Your task to perform on an android device: Open ESPN.com Image 0: 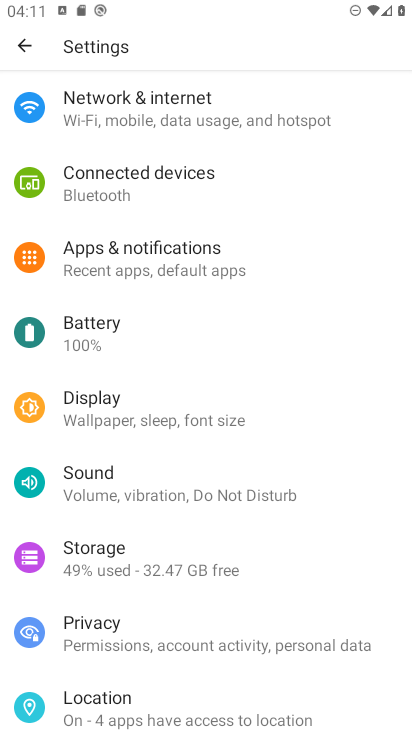
Step 0: press home button
Your task to perform on an android device: Open ESPN.com Image 1: 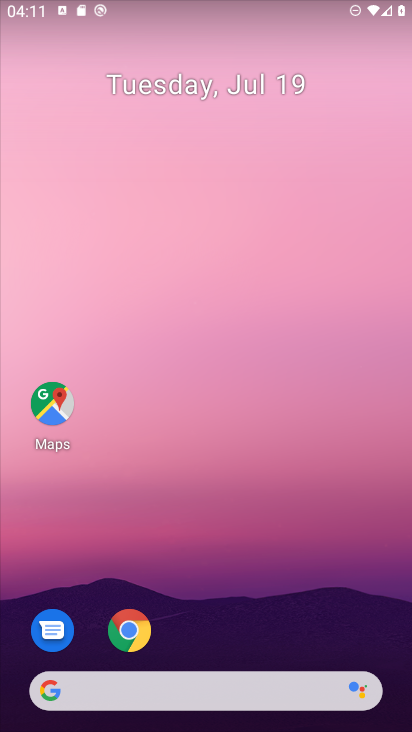
Step 1: click (133, 630)
Your task to perform on an android device: Open ESPN.com Image 2: 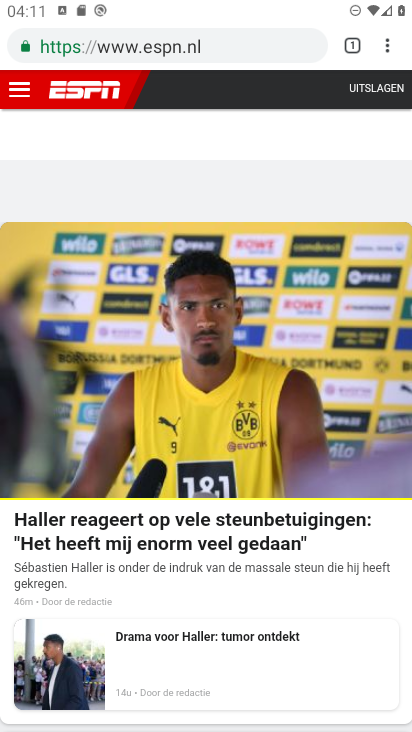
Step 2: task complete